Your task to perform on an android device: When is my next appointment? Image 0: 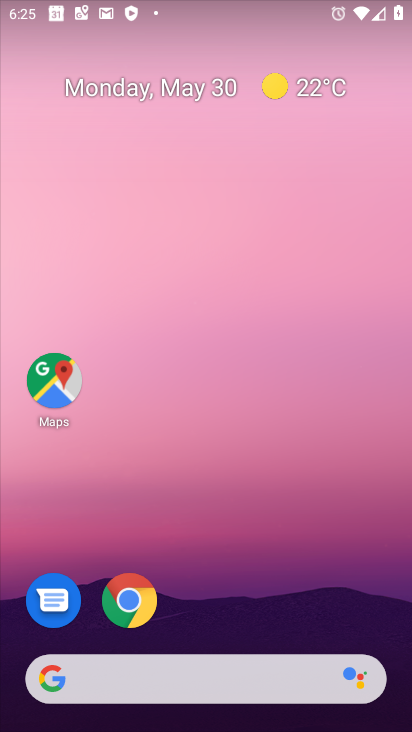
Step 0: press home button
Your task to perform on an android device: When is my next appointment? Image 1: 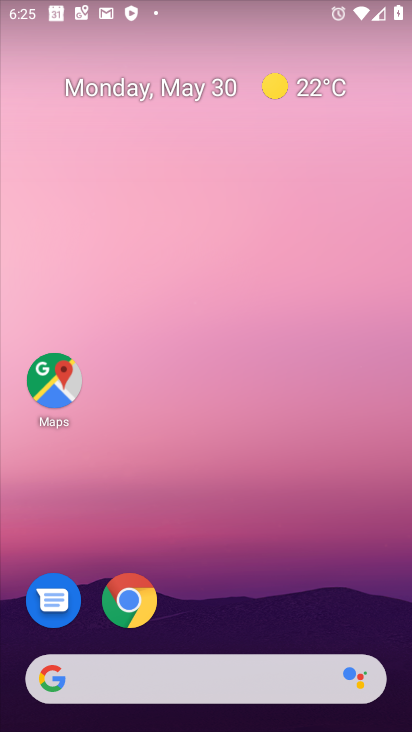
Step 1: drag from (251, 624) to (257, 270)
Your task to perform on an android device: When is my next appointment? Image 2: 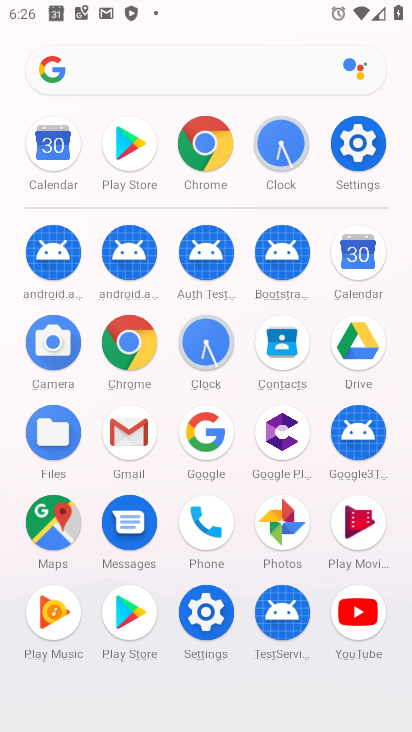
Step 2: click (358, 253)
Your task to perform on an android device: When is my next appointment? Image 3: 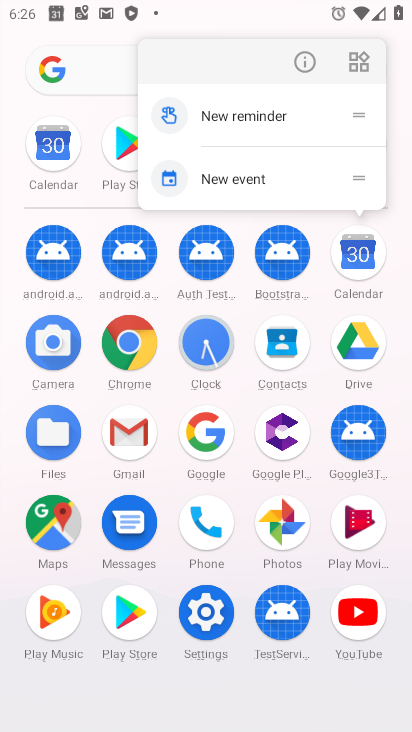
Step 3: click (367, 262)
Your task to perform on an android device: When is my next appointment? Image 4: 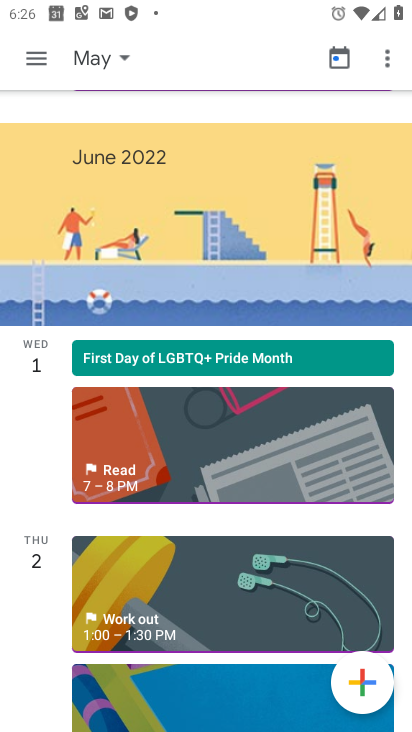
Step 4: task complete